Your task to perform on an android device: open app "Adobe Acrobat Reader: Edit PDF" (install if not already installed) and enter user name: "arthritis@inbox.com" and password: "scythes" Image 0: 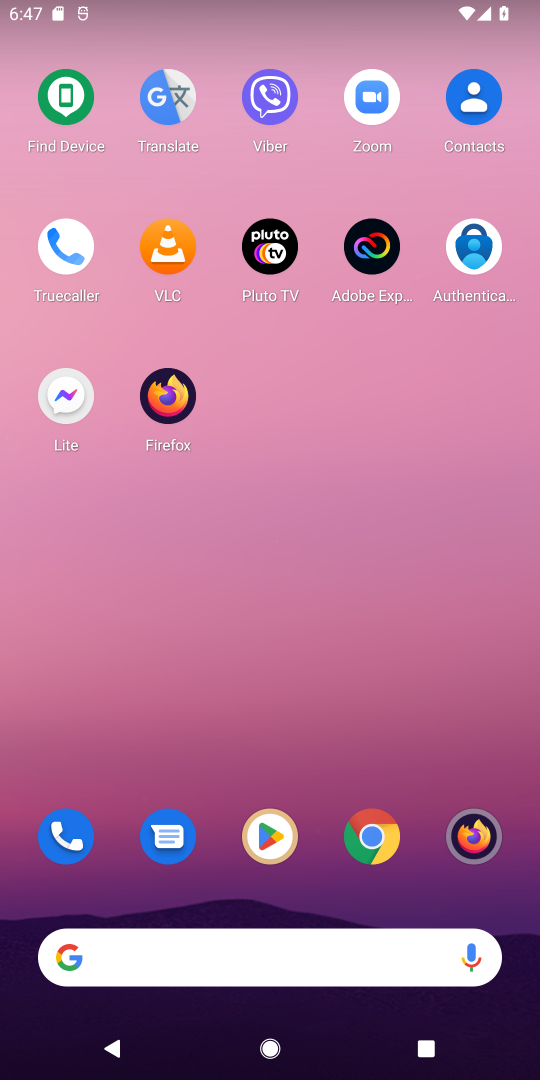
Step 0: press home button
Your task to perform on an android device: open app "Adobe Acrobat Reader: Edit PDF" (install if not already installed) and enter user name: "arthritis@inbox.com" and password: "scythes" Image 1: 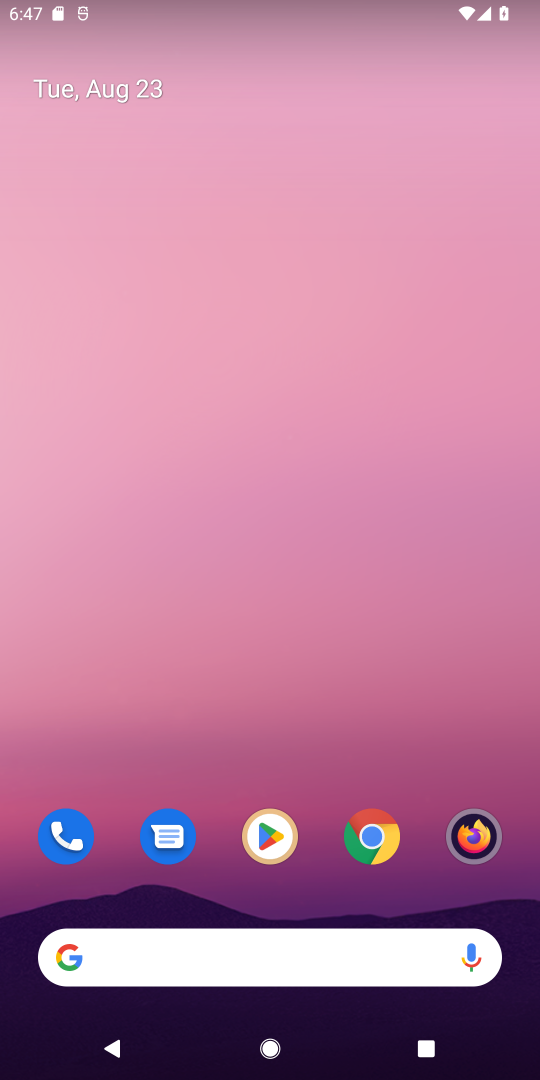
Step 1: click (260, 833)
Your task to perform on an android device: open app "Adobe Acrobat Reader: Edit PDF" (install if not already installed) and enter user name: "arthritis@inbox.com" and password: "scythes" Image 2: 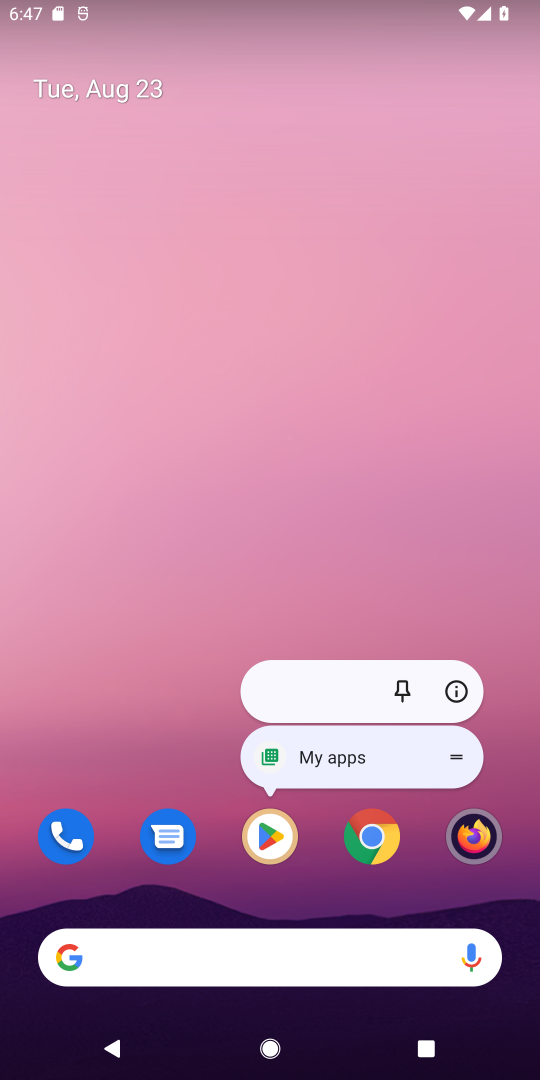
Step 2: click (264, 833)
Your task to perform on an android device: open app "Adobe Acrobat Reader: Edit PDF" (install if not already installed) and enter user name: "arthritis@inbox.com" and password: "scythes" Image 3: 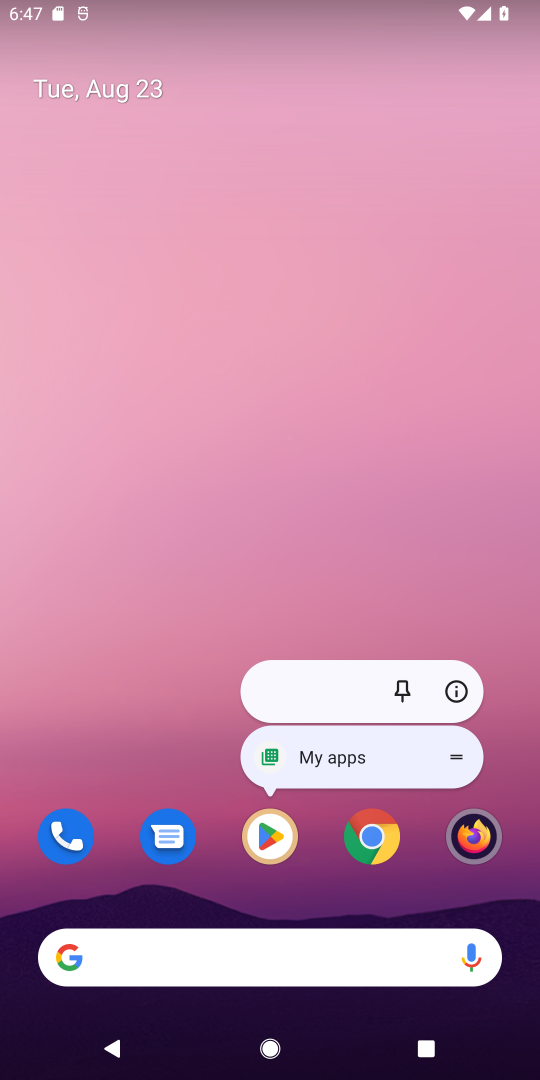
Step 3: click (264, 841)
Your task to perform on an android device: open app "Adobe Acrobat Reader: Edit PDF" (install if not already installed) and enter user name: "arthritis@inbox.com" and password: "scythes" Image 4: 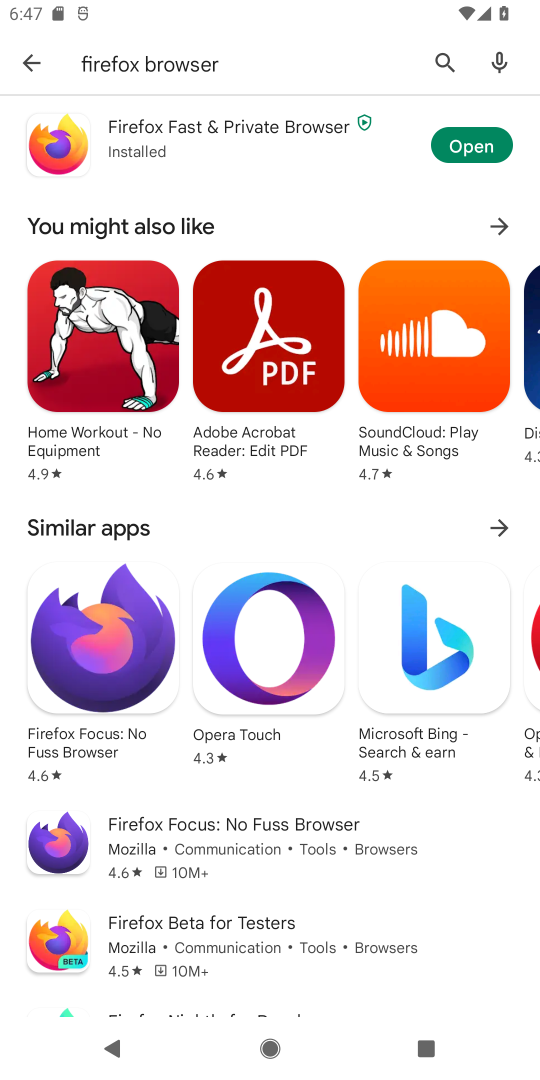
Step 4: click (438, 65)
Your task to perform on an android device: open app "Adobe Acrobat Reader: Edit PDF" (install if not already installed) and enter user name: "arthritis@inbox.com" and password: "scythes" Image 5: 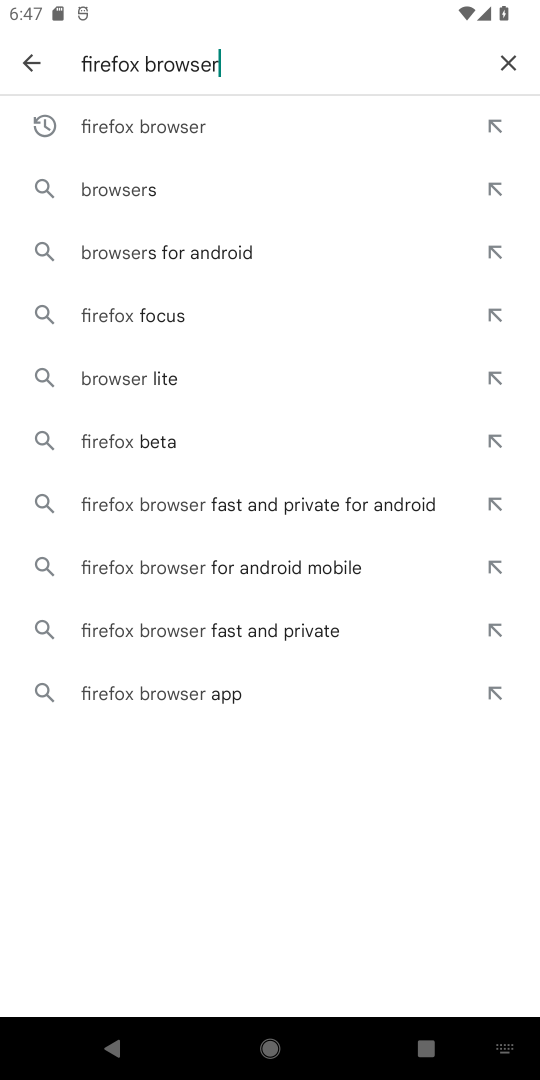
Step 5: click (509, 60)
Your task to perform on an android device: open app "Adobe Acrobat Reader: Edit PDF" (install if not already installed) and enter user name: "arthritis@inbox.com" and password: "scythes" Image 6: 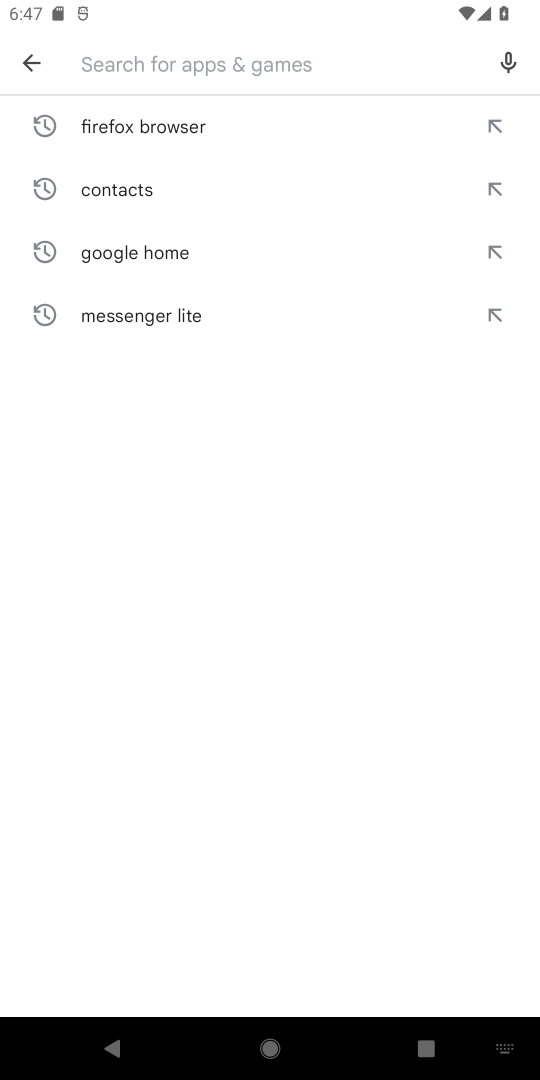
Step 6: type "Adobe Acrobat Reader: Edit PDF"
Your task to perform on an android device: open app "Adobe Acrobat Reader: Edit PDF" (install if not already installed) and enter user name: "arthritis@inbox.com" and password: "scythes" Image 7: 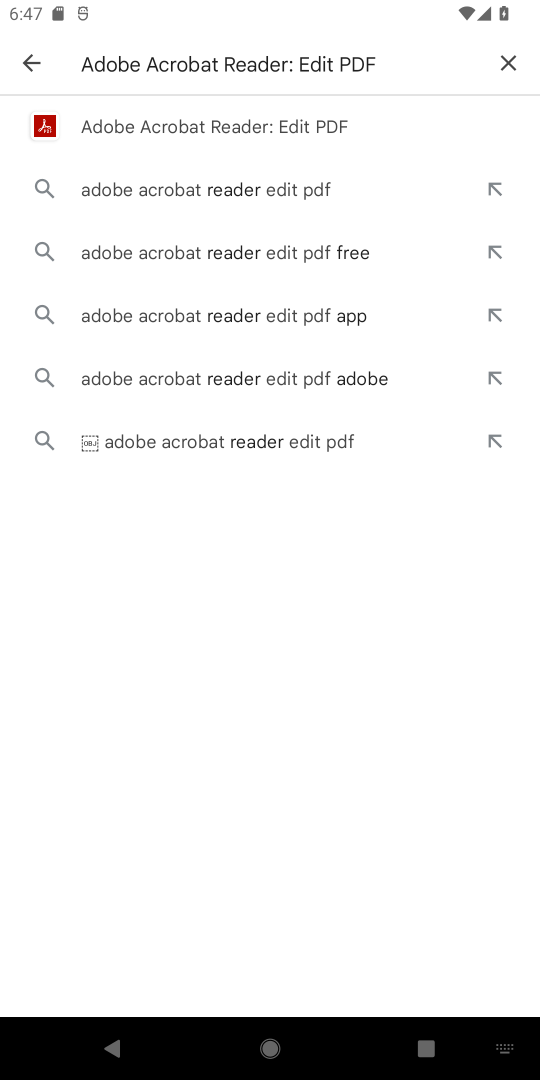
Step 7: click (150, 123)
Your task to perform on an android device: open app "Adobe Acrobat Reader: Edit PDF" (install if not already installed) and enter user name: "arthritis@inbox.com" and password: "scythes" Image 8: 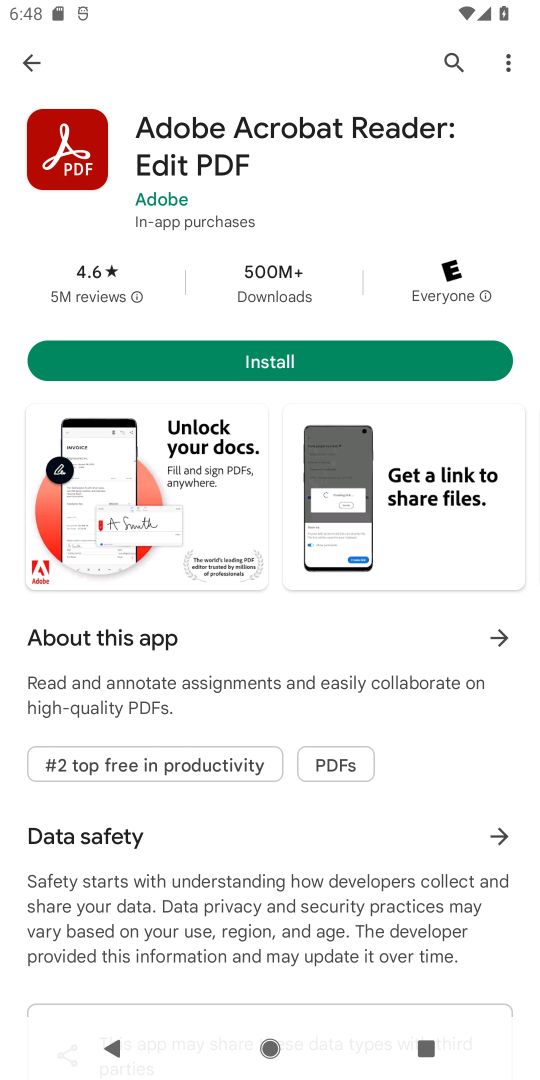
Step 8: click (307, 356)
Your task to perform on an android device: open app "Adobe Acrobat Reader: Edit PDF" (install if not already installed) and enter user name: "arthritis@inbox.com" and password: "scythes" Image 9: 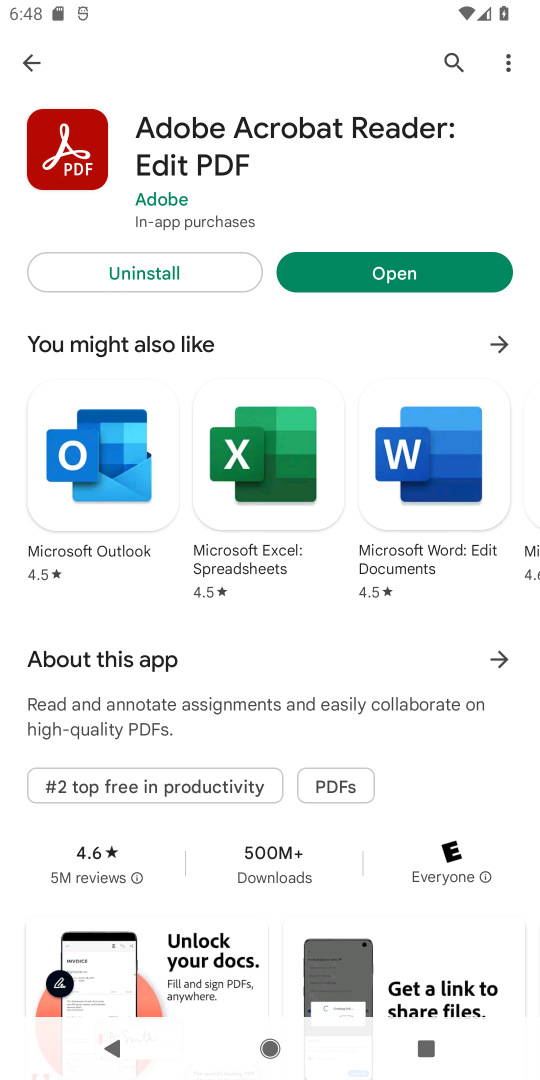
Step 9: click (426, 269)
Your task to perform on an android device: open app "Adobe Acrobat Reader: Edit PDF" (install if not already installed) and enter user name: "arthritis@inbox.com" and password: "scythes" Image 10: 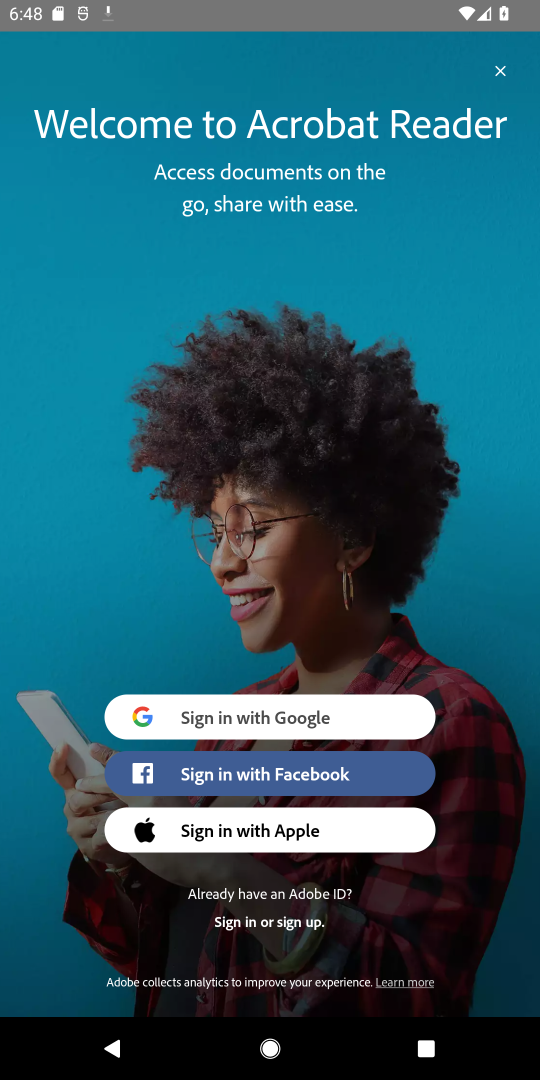
Step 10: task complete